Your task to perform on an android device: Open ESPN.com Image 0: 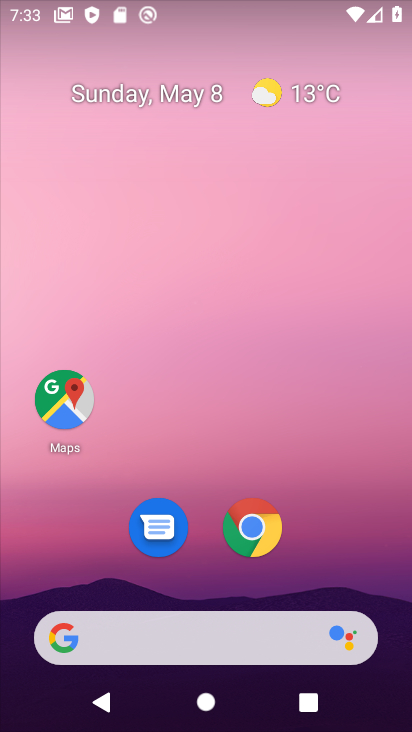
Step 0: drag from (326, 512) to (405, 112)
Your task to perform on an android device: Open ESPN.com Image 1: 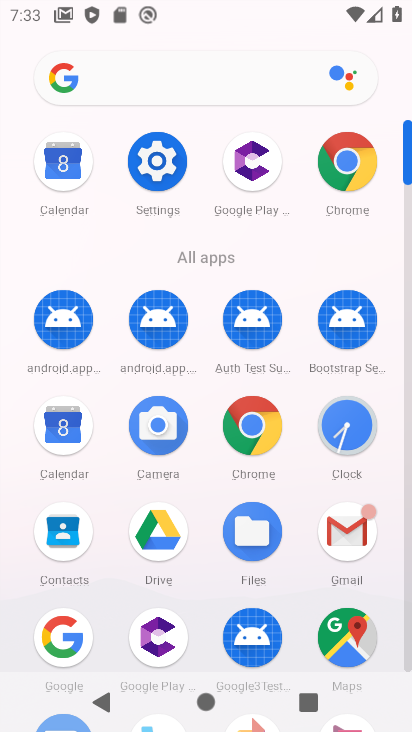
Step 1: click (358, 185)
Your task to perform on an android device: Open ESPN.com Image 2: 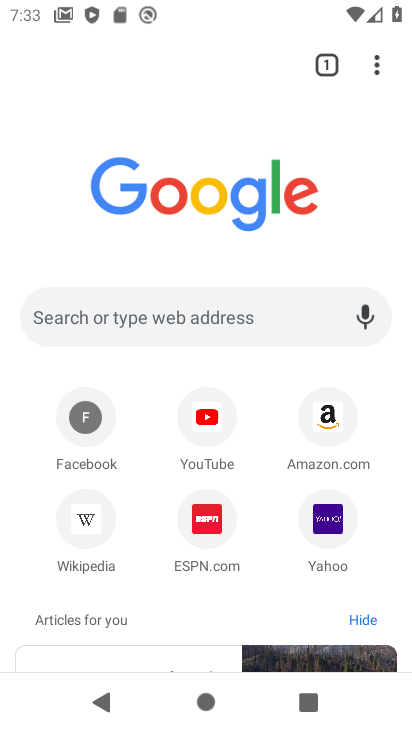
Step 2: click (217, 530)
Your task to perform on an android device: Open ESPN.com Image 3: 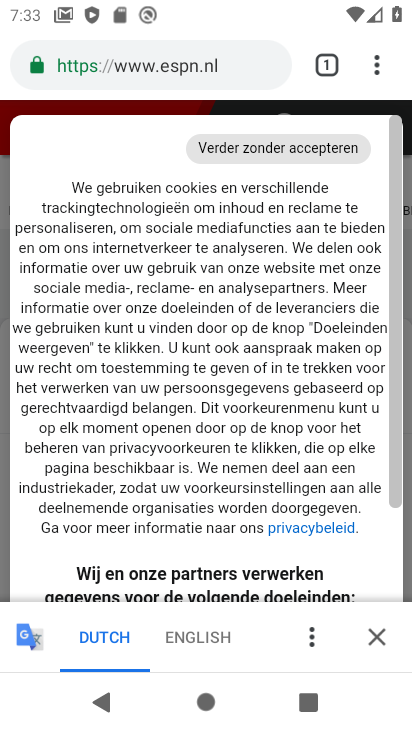
Step 3: task complete